Your task to perform on an android device: set the timer Image 0: 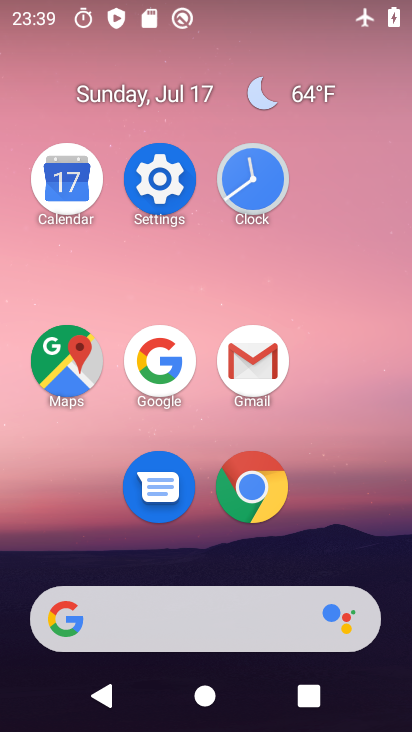
Step 0: click (265, 186)
Your task to perform on an android device: set the timer Image 1: 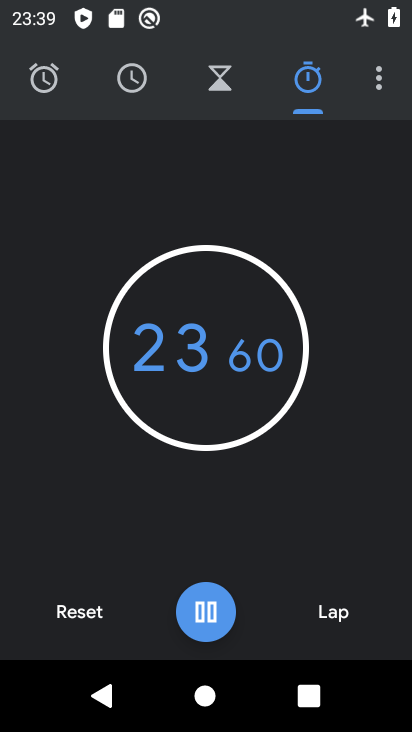
Step 1: click (88, 623)
Your task to perform on an android device: set the timer Image 2: 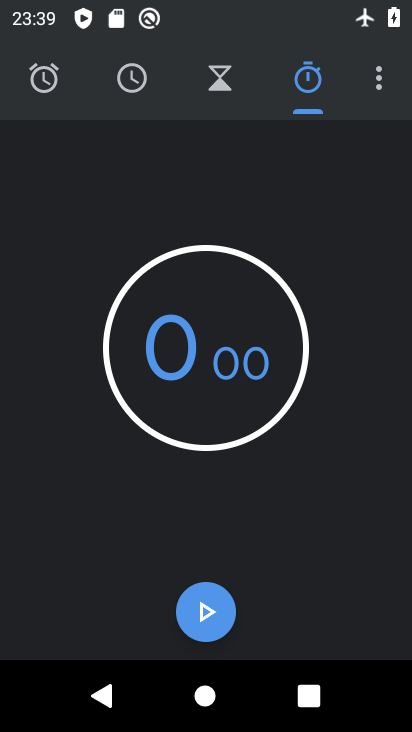
Step 2: click (206, 580)
Your task to perform on an android device: set the timer Image 3: 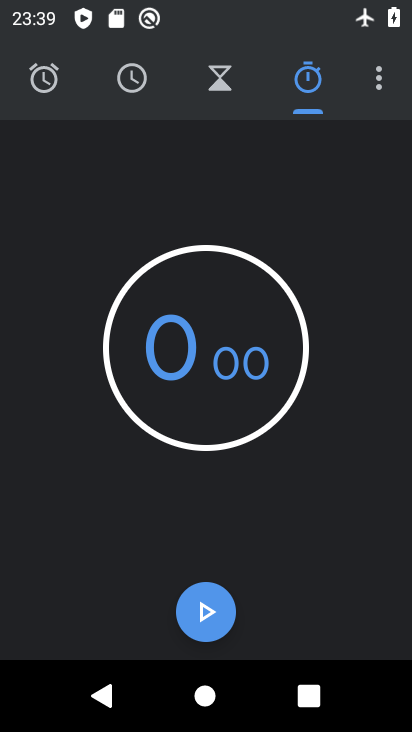
Step 3: click (218, 621)
Your task to perform on an android device: set the timer Image 4: 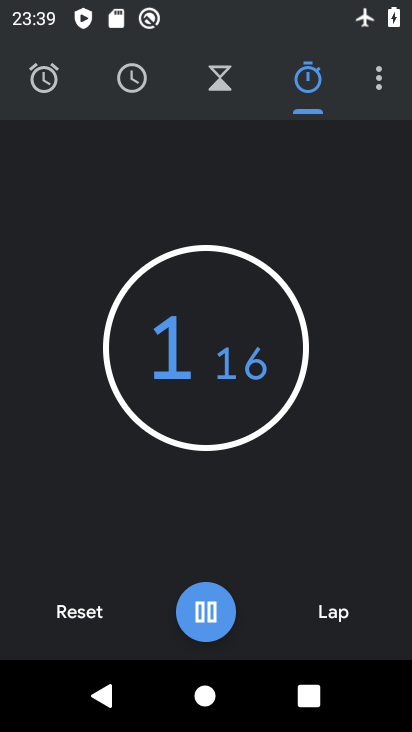
Step 4: task complete